Your task to perform on an android device: Do I have any events this weekend? Image 0: 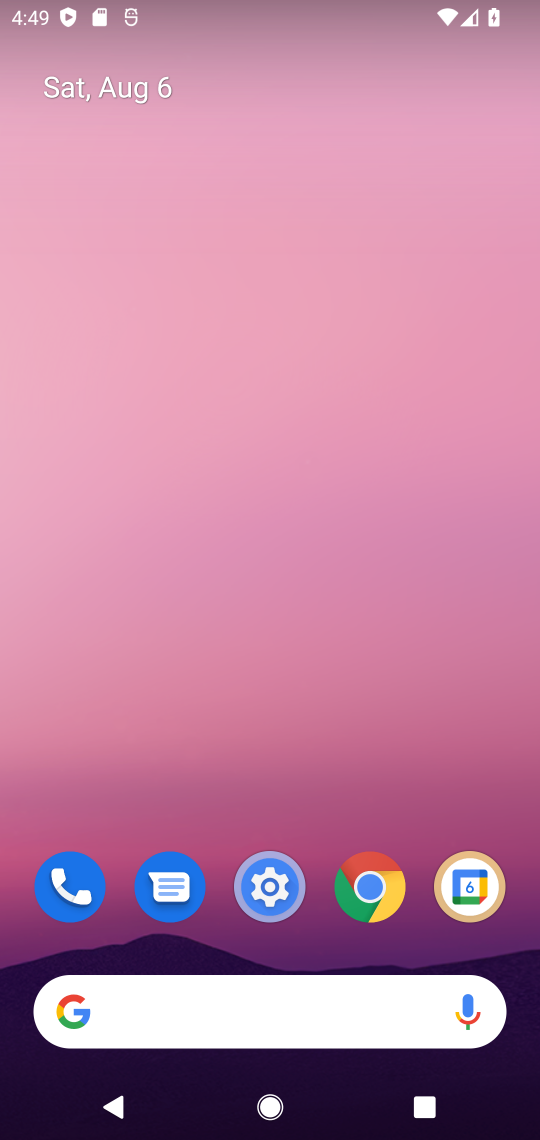
Step 0: click (158, 88)
Your task to perform on an android device: Do I have any events this weekend? Image 1: 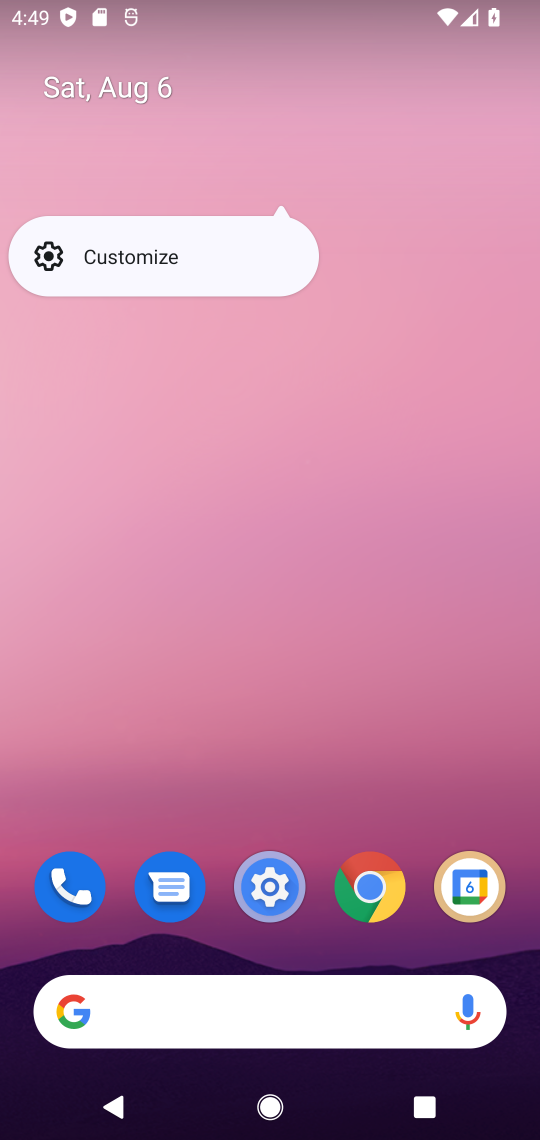
Step 1: click (306, 930)
Your task to perform on an android device: Do I have any events this weekend? Image 2: 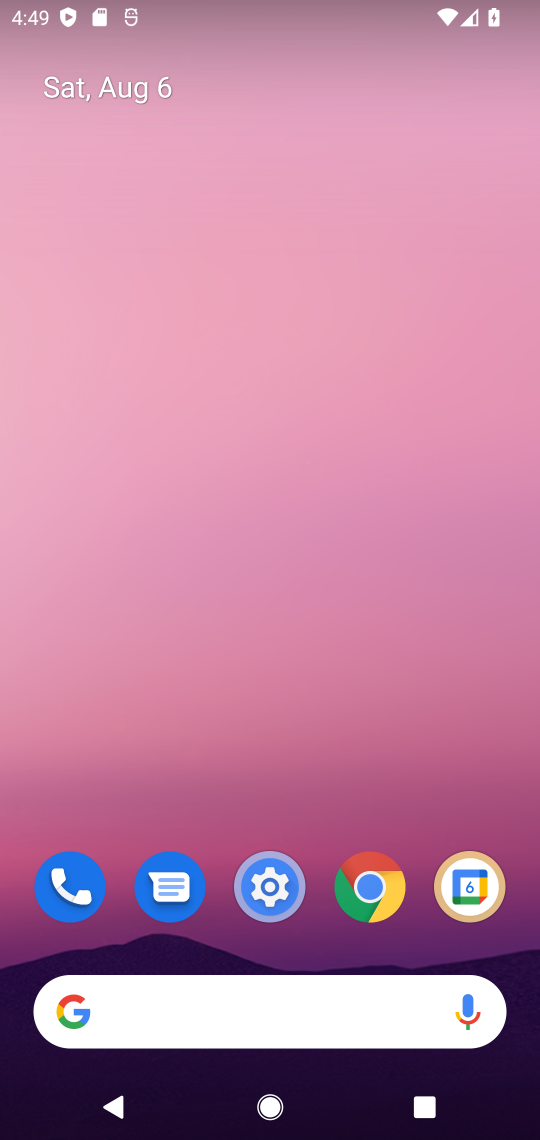
Step 2: drag from (310, 1005) to (292, 316)
Your task to perform on an android device: Do I have any events this weekend? Image 3: 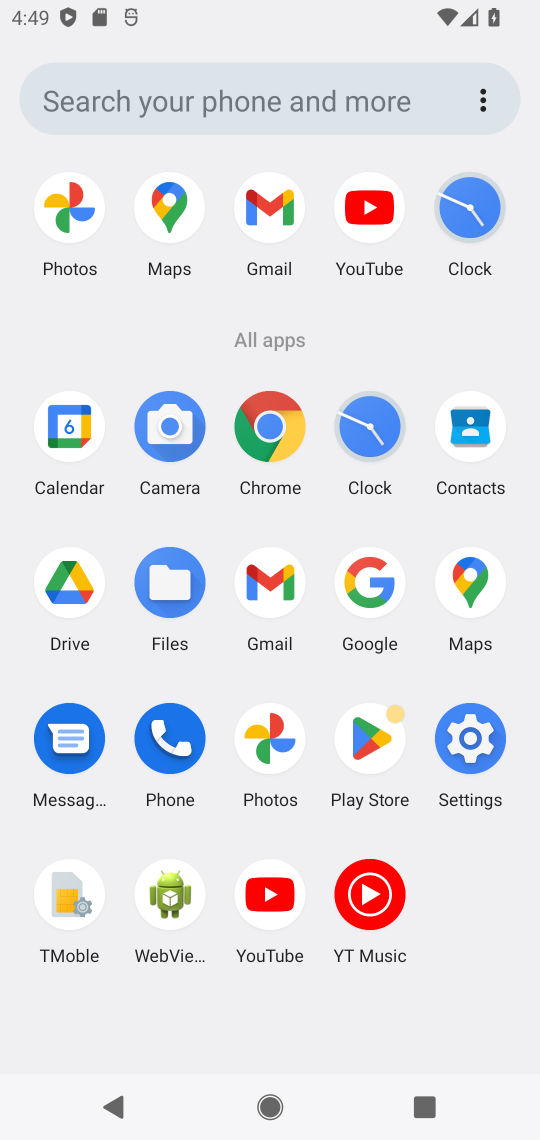
Step 3: click (79, 438)
Your task to perform on an android device: Do I have any events this weekend? Image 4: 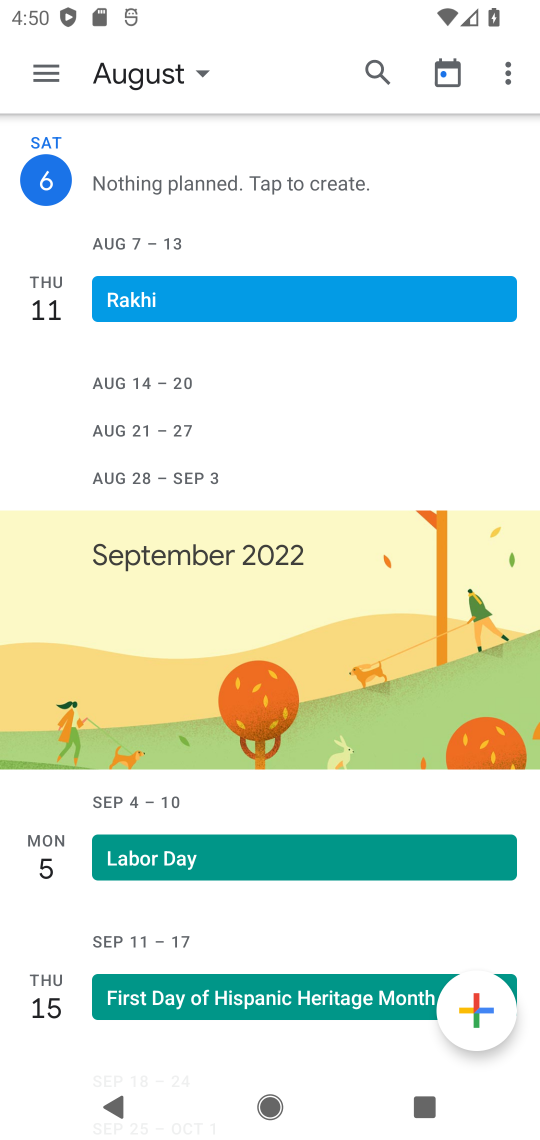
Step 4: click (29, 98)
Your task to perform on an android device: Do I have any events this weekend? Image 5: 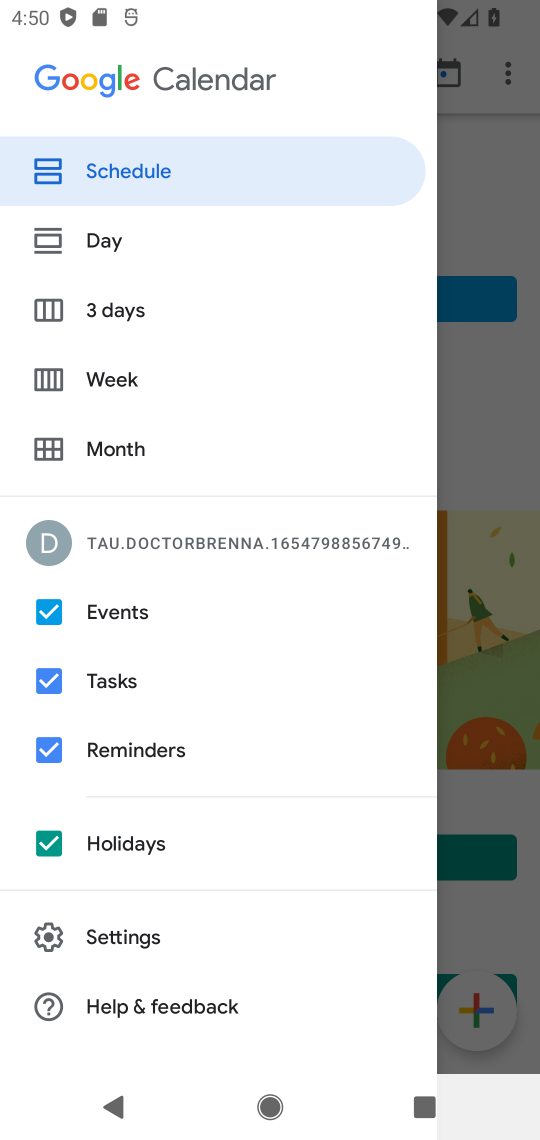
Step 5: click (155, 379)
Your task to perform on an android device: Do I have any events this weekend? Image 6: 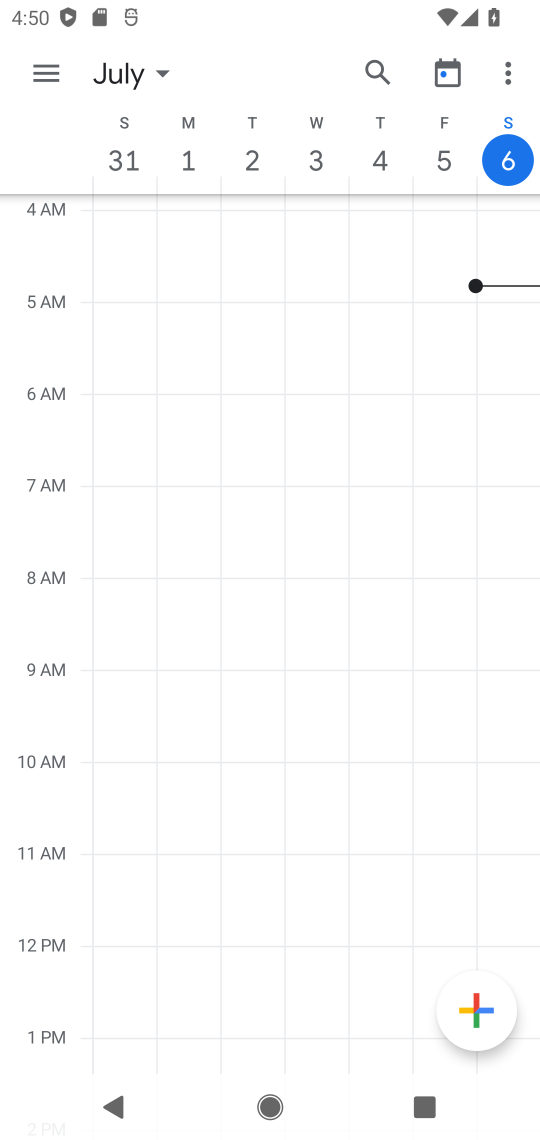
Step 6: click (32, 66)
Your task to perform on an android device: Do I have any events this weekend? Image 7: 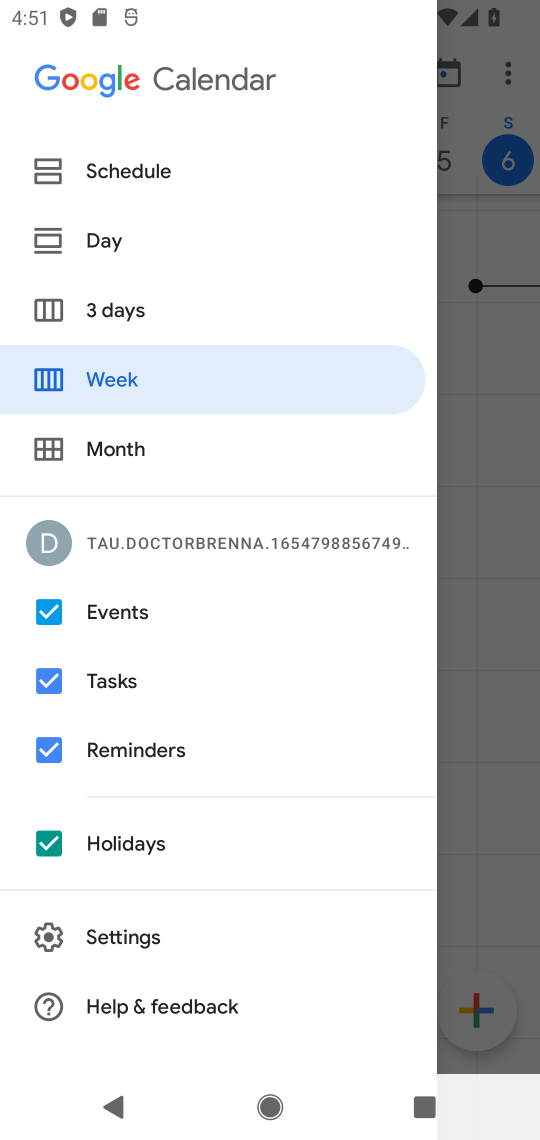
Step 7: click (131, 369)
Your task to perform on an android device: Do I have any events this weekend? Image 8: 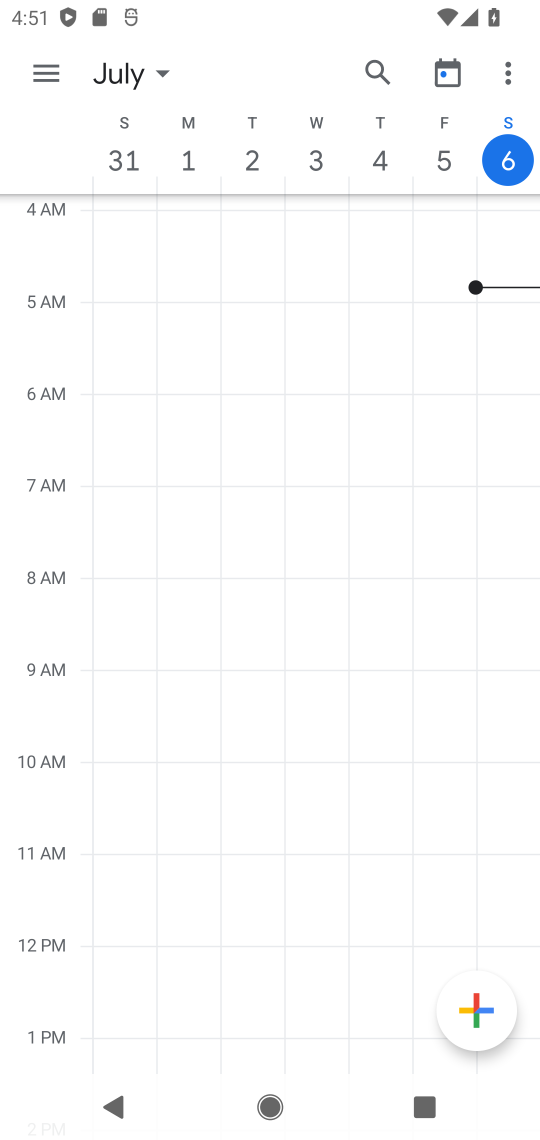
Step 8: task complete